Your task to perform on an android device: What is the recent news? Image 0: 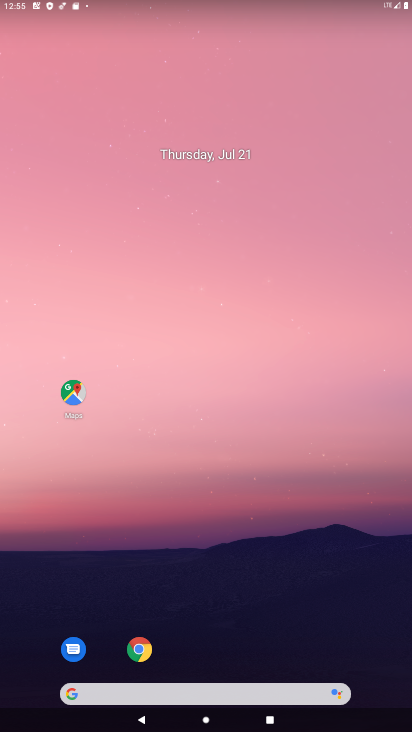
Step 0: drag from (1, 293) to (356, 312)
Your task to perform on an android device: What is the recent news? Image 1: 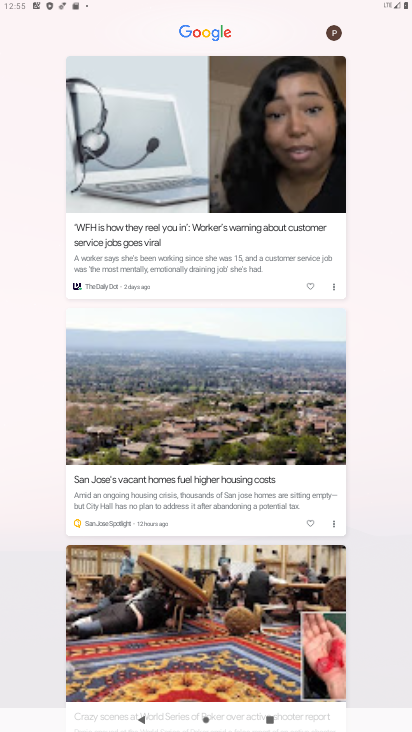
Step 1: task complete